Your task to perform on an android device: Show me productivity apps on the Play Store Image 0: 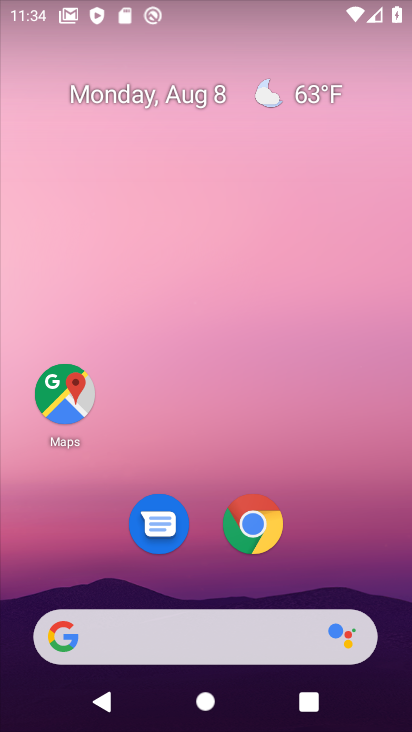
Step 0: drag from (199, 583) to (204, 106)
Your task to perform on an android device: Show me productivity apps on the Play Store Image 1: 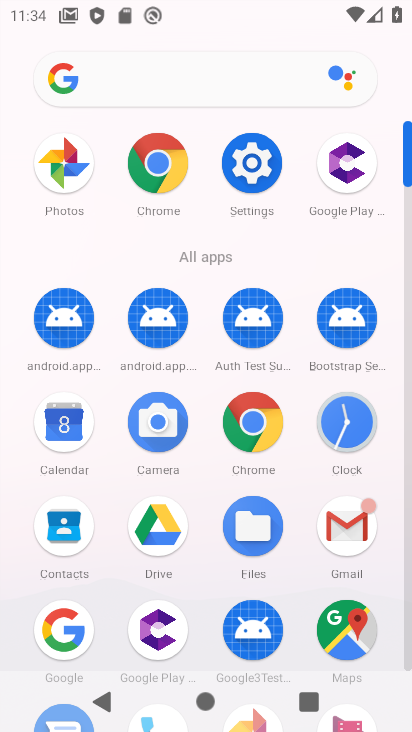
Step 1: drag from (193, 638) to (236, 205)
Your task to perform on an android device: Show me productivity apps on the Play Store Image 2: 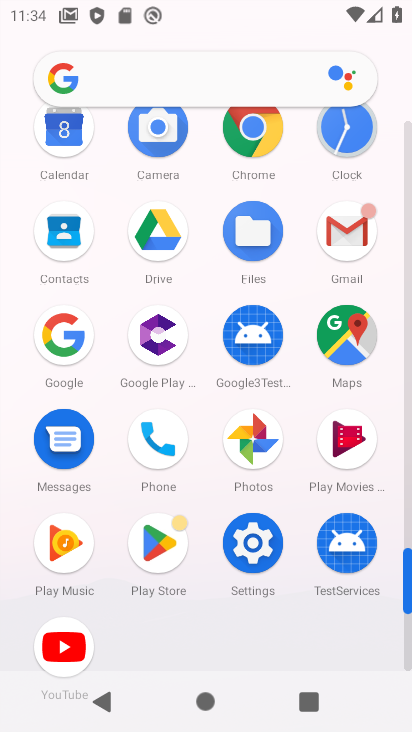
Step 2: click (141, 531)
Your task to perform on an android device: Show me productivity apps on the Play Store Image 3: 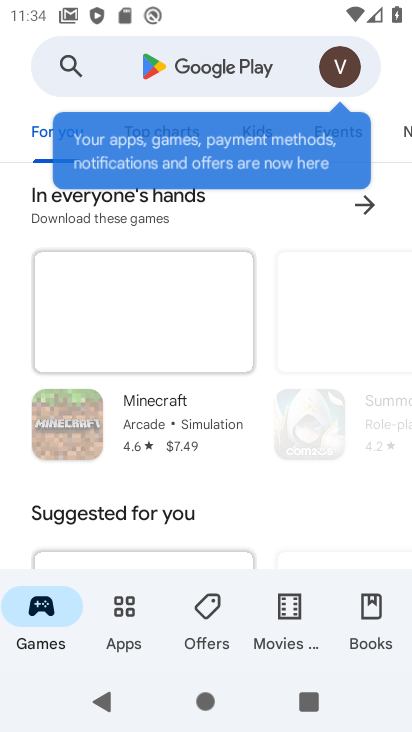
Step 3: click (120, 602)
Your task to perform on an android device: Show me productivity apps on the Play Store Image 4: 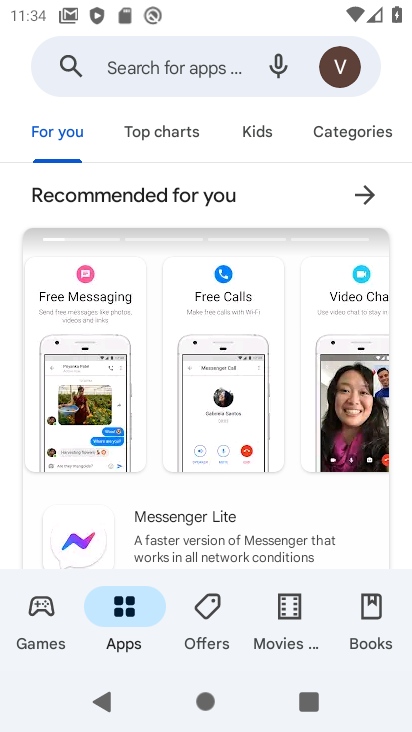
Step 4: click (330, 136)
Your task to perform on an android device: Show me productivity apps on the Play Store Image 5: 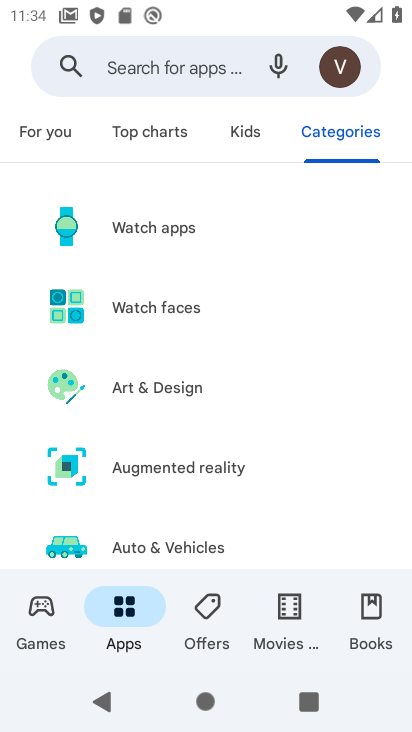
Step 5: drag from (171, 499) to (176, 175)
Your task to perform on an android device: Show me productivity apps on the Play Store Image 6: 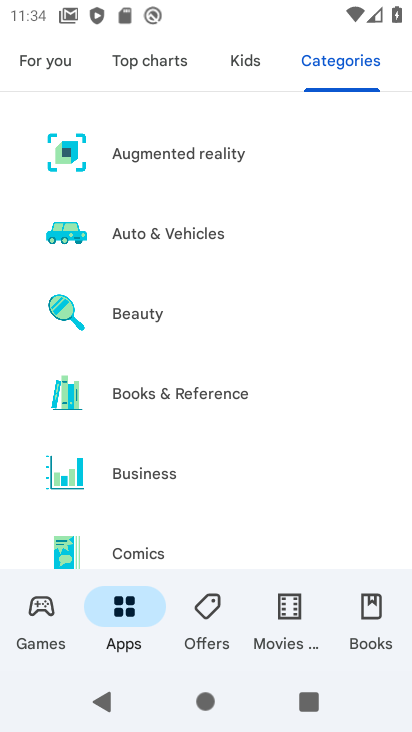
Step 6: drag from (216, 475) to (188, 202)
Your task to perform on an android device: Show me productivity apps on the Play Store Image 7: 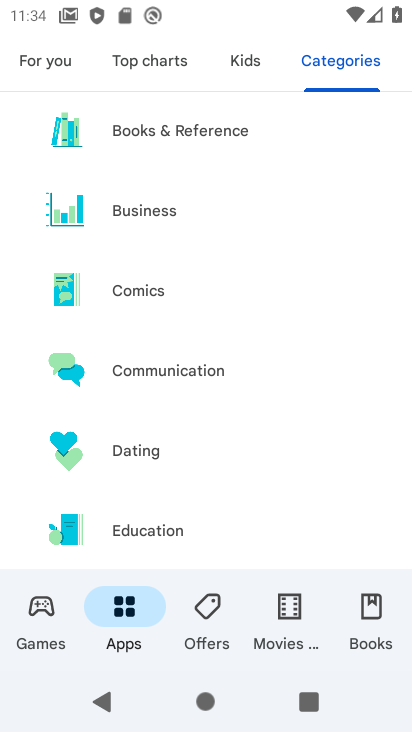
Step 7: drag from (186, 519) to (157, 154)
Your task to perform on an android device: Show me productivity apps on the Play Store Image 8: 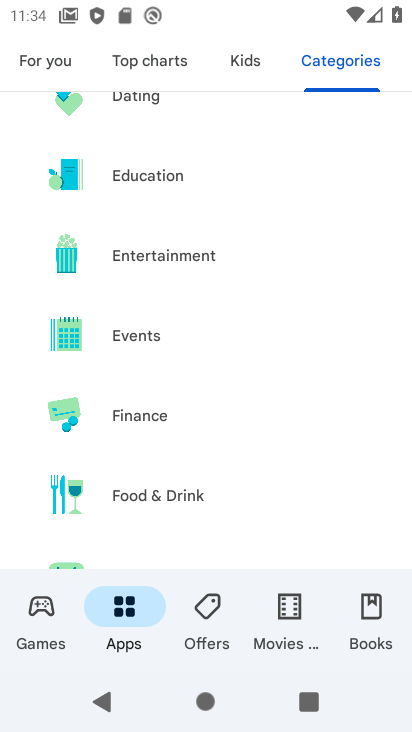
Step 8: drag from (153, 524) to (144, 214)
Your task to perform on an android device: Show me productivity apps on the Play Store Image 9: 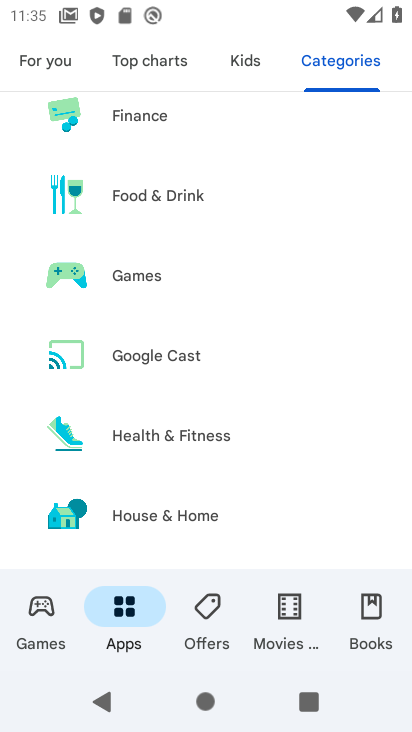
Step 9: drag from (175, 301) to (160, 137)
Your task to perform on an android device: Show me productivity apps on the Play Store Image 10: 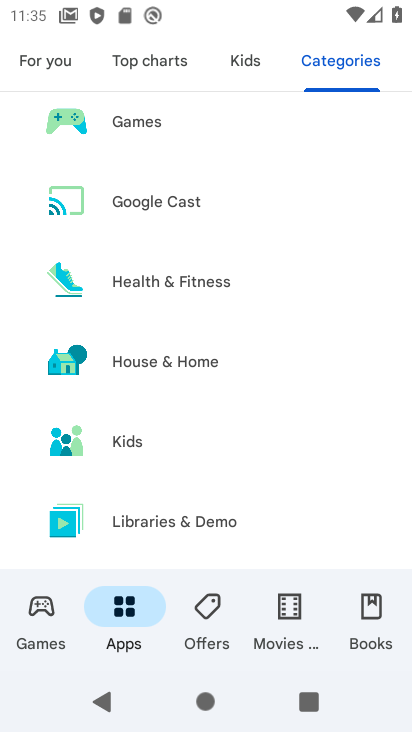
Step 10: drag from (233, 367) to (202, 117)
Your task to perform on an android device: Show me productivity apps on the Play Store Image 11: 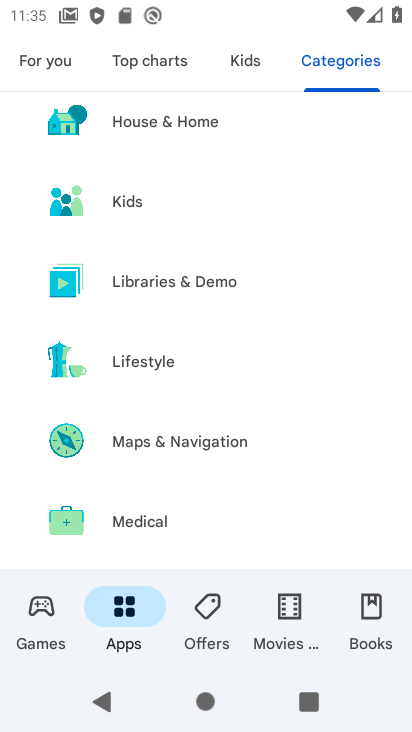
Step 11: drag from (227, 413) to (159, 104)
Your task to perform on an android device: Show me productivity apps on the Play Store Image 12: 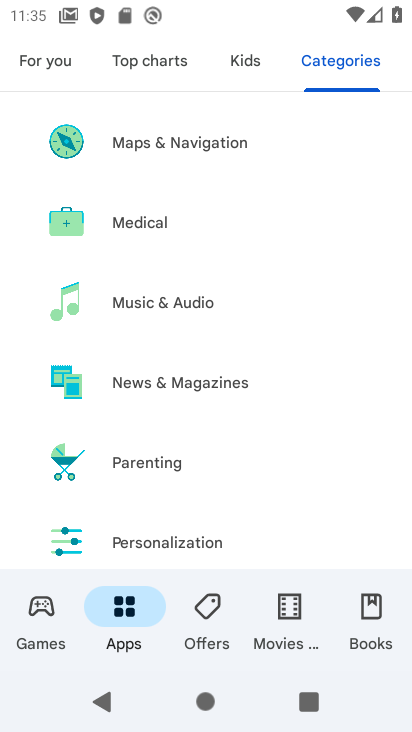
Step 12: drag from (230, 531) to (188, 117)
Your task to perform on an android device: Show me productivity apps on the Play Store Image 13: 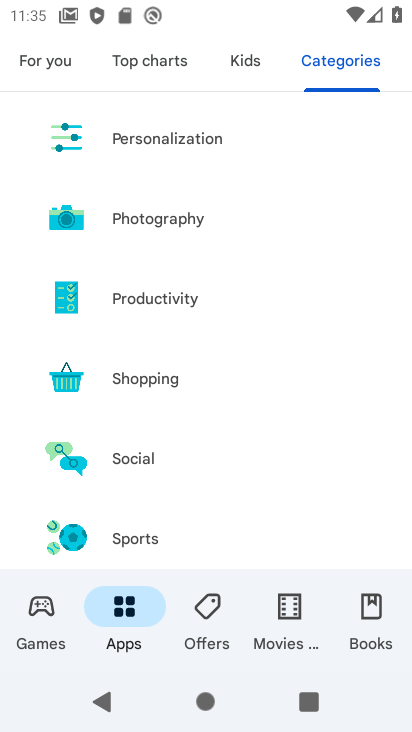
Step 13: click (216, 300)
Your task to perform on an android device: Show me productivity apps on the Play Store Image 14: 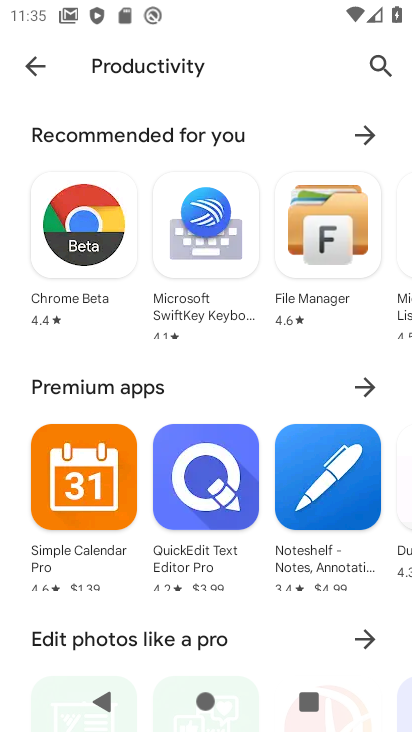
Step 14: task complete